Your task to perform on an android device: Search for pizza restaurants on Maps Image 0: 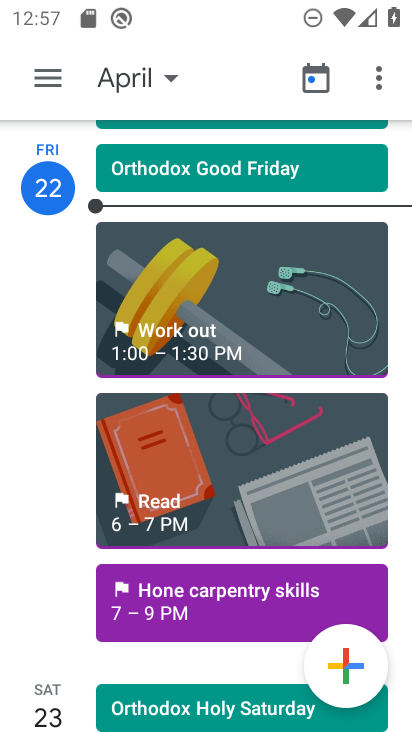
Step 0: press home button
Your task to perform on an android device: Search for pizza restaurants on Maps Image 1: 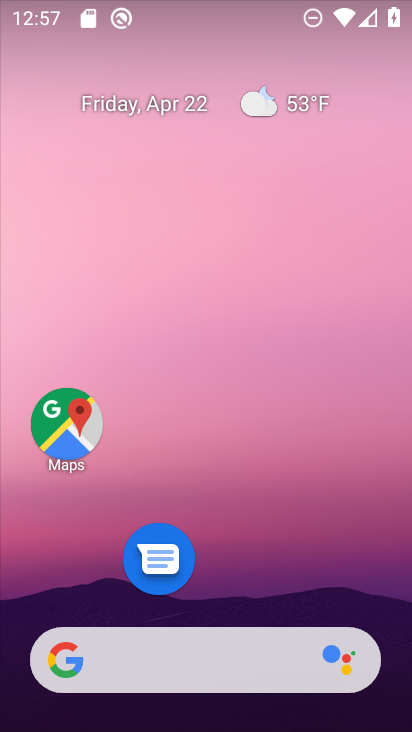
Step 1: drag from (235, 729) to (232, 113)
Your task to perform on an android device: Search for pizza restaurants on Maps Image 2: 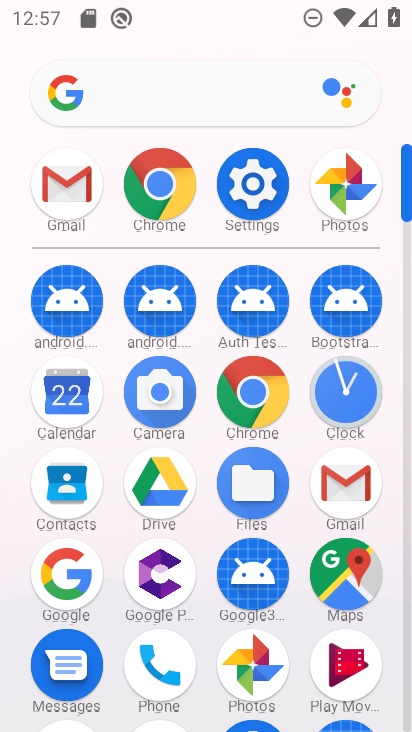
Step 2: click (336, 558)
Your task to perform on an android device: Search for pizza restaurants on Maps Image 3: 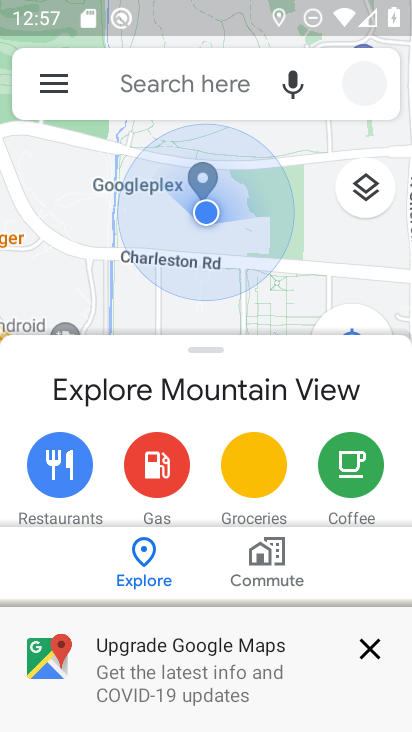
Step 3: click (209, 85)
Your task to perform on an android device: Search for pizza restaurants on Maps Image 4: 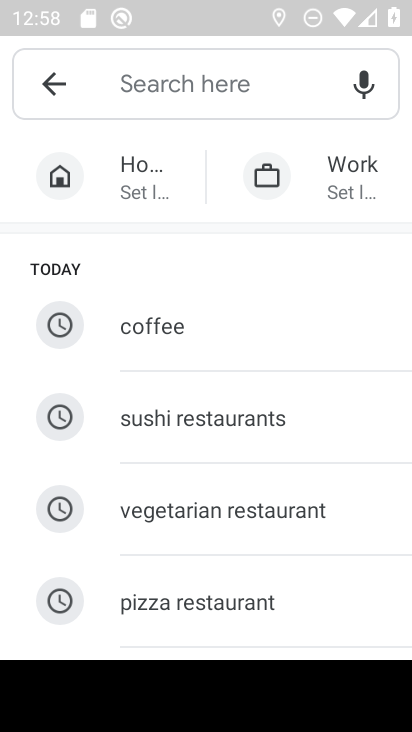
Step 4: type "pizza restaurants"
Your task to perform on an android device: Search for pizza restaurants on Maps Image 5: 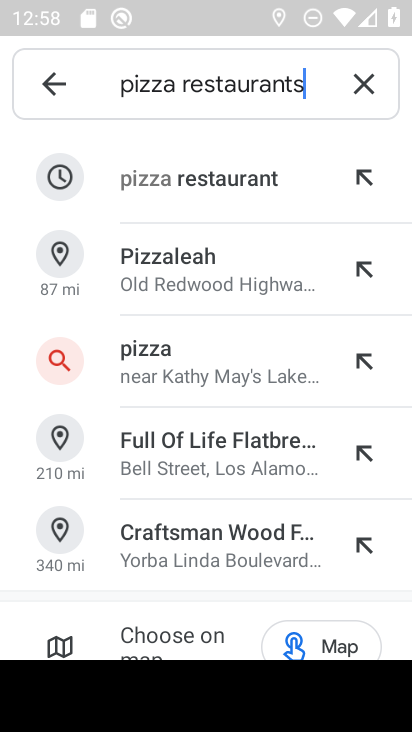
Step 5: click (209, 181)
Your task to perform on an android device: Search for pizza restaurants on Maps Image 6: 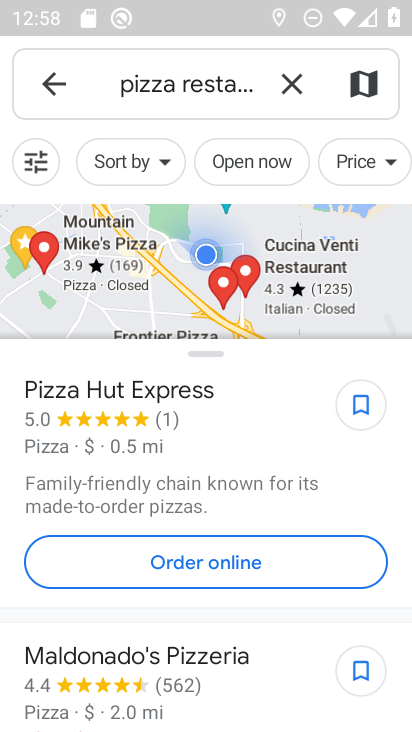
Step 6: task complete